Your task to perform on an android device: check battery use Image 0: 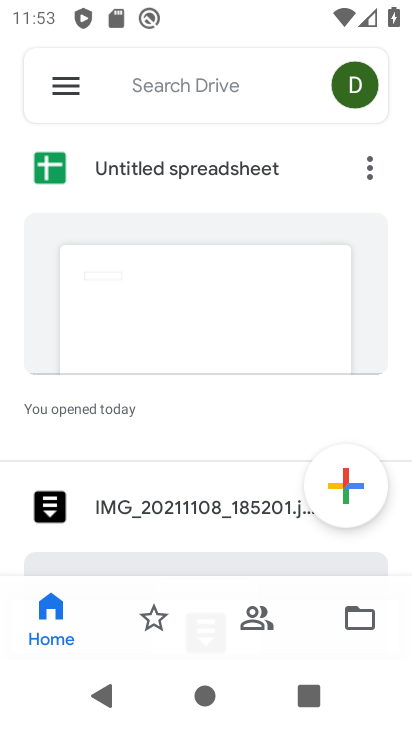
Step 0: press home button
Your task to perform on an android device: check battery use Image 1: 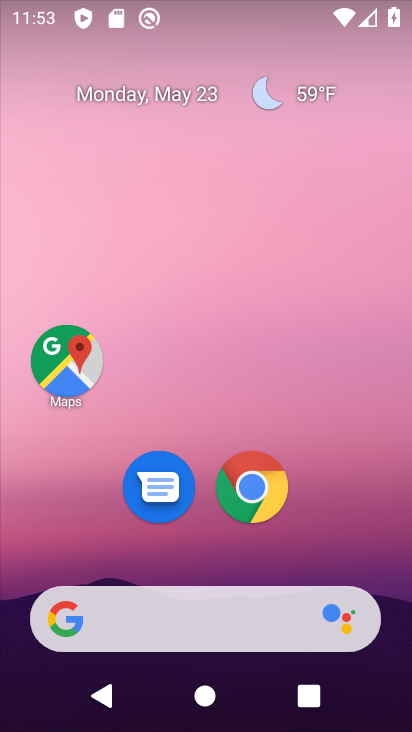
Step 1: drag from (343, 538) to (273, 55)
Your task to perform on an android device: check battery use Image 2: 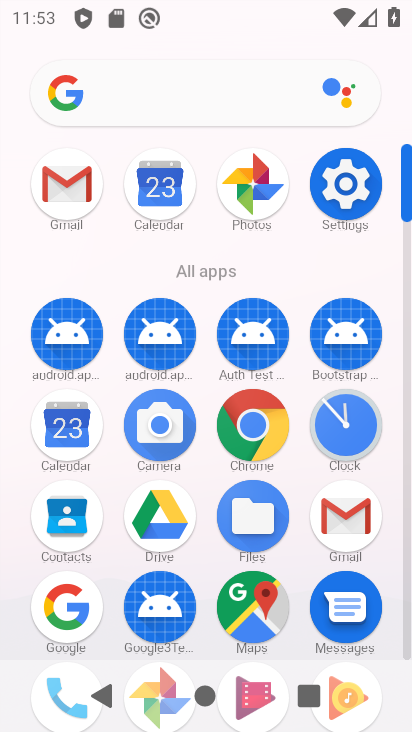
Step 2: click (347, 201)
Your task to perform on an android device: check battery use Image 3: 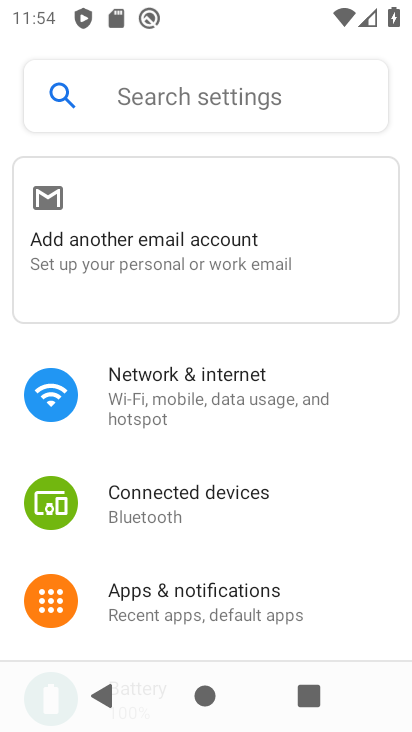
Step 3: drag from (269, 623) to (260, 234)
Your task to perform on an android device: check battery use Image 4: 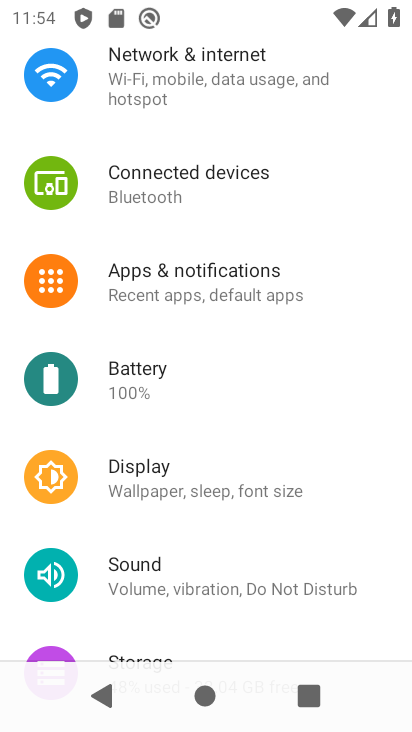
Step 4: click (131, 393)
Your task to perform on an android device: check battery use Image 5: 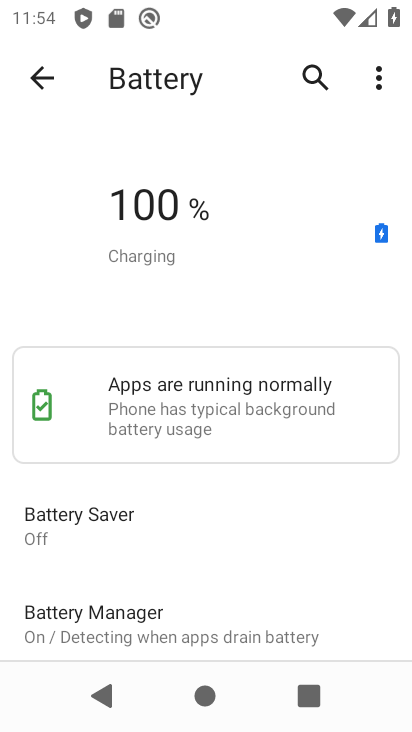
Step 5: click (381, 85)
Your task to perform on an android device: check battery use Image 6: 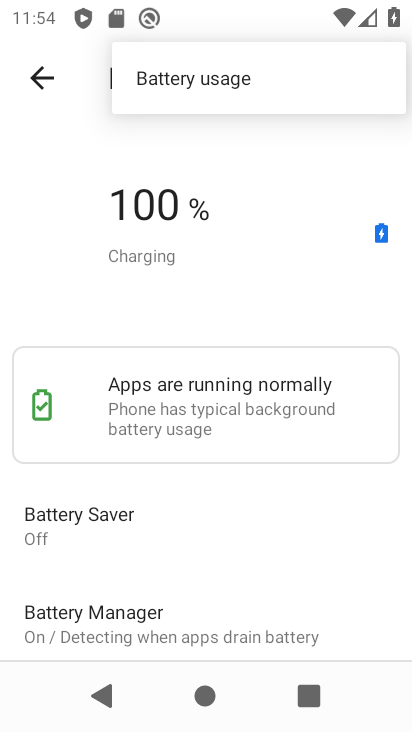
Step 6: click (252, 81)
Your task to perform on an android device: check battery use Image 7: 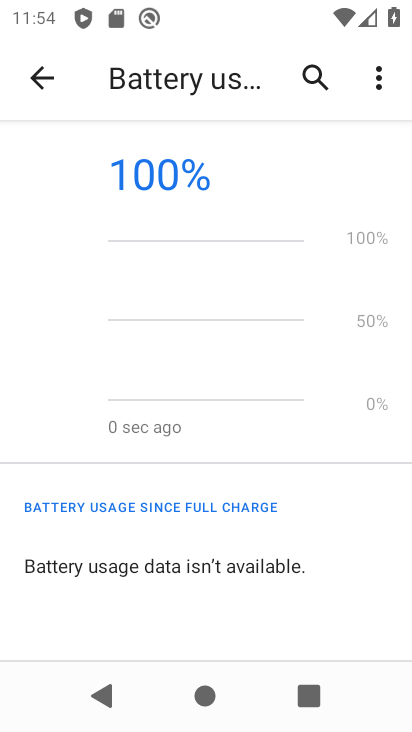
Step 7: task complete